Your task to perform on an android device: toggle notifications settings in the gmail app Image 0: 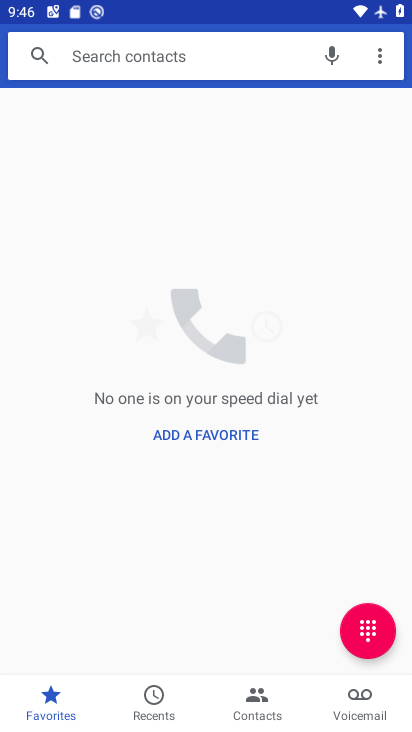
Step 0: press home button
Your task to perform on an android device: toggle notifications settings in the gmail app Image 1: 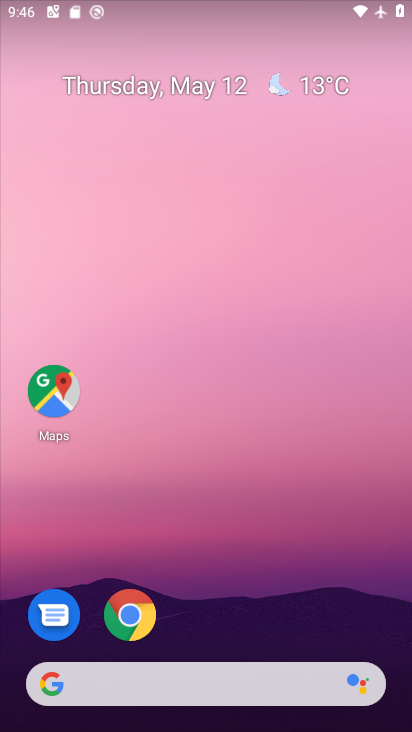
Step 1: drag from (247, 541) to (196, 142)
Your task to perform on an android device: toggle notifications settings in the gmail app Image 2: 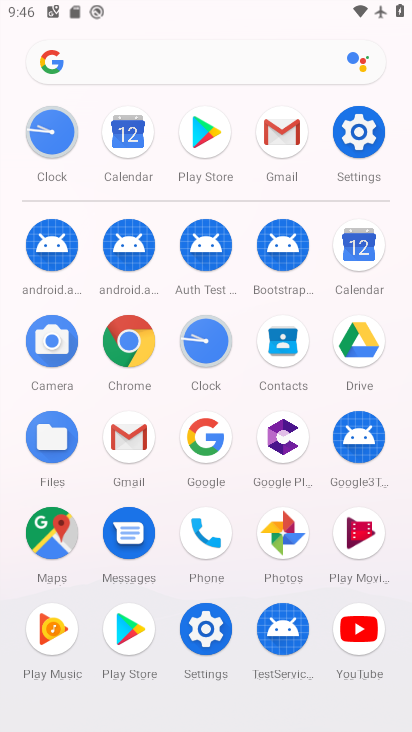
Step 2: click (282, 138)
Your task to perform on an android device: toggle notifications settings in the gmail app Image 3: 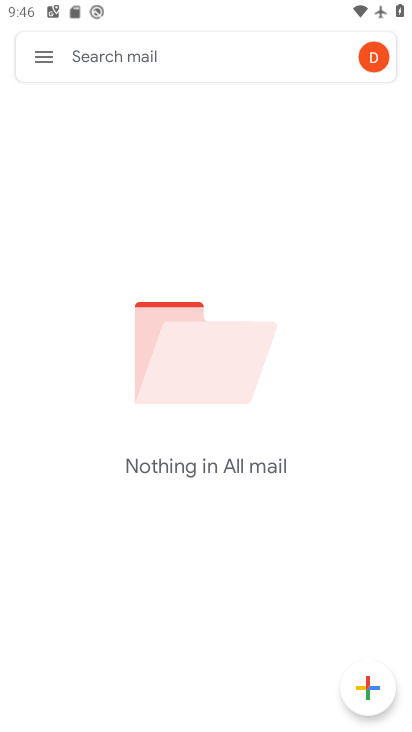
Step 3: click (37, 59)
Your task to perform on an android device: toggle notifications settings in the gmail app Image 4: 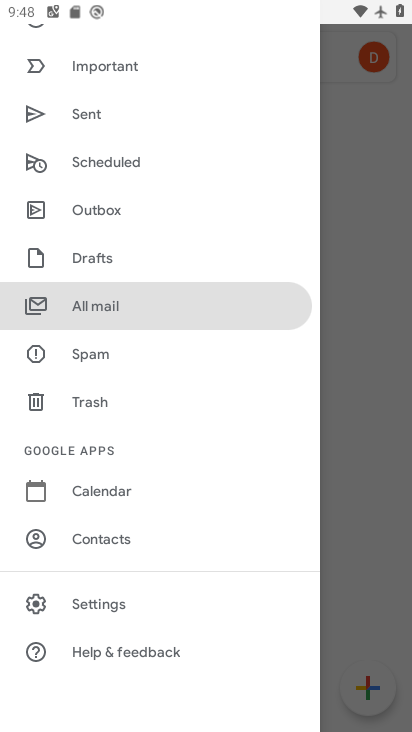
Step 4: click (100, 594)
Your task to perform on an android device: toggle notifications settings in the gmail app Image 5: 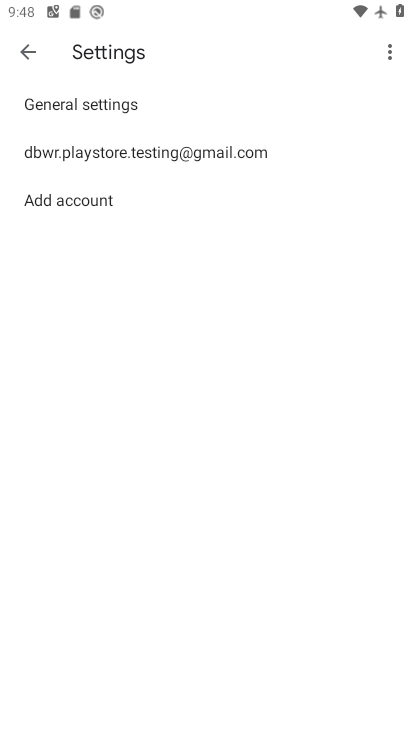
Step 5: click (23, 50)
Your task to perform on an android device: toggle notifications settings in the gmail app Image 6: 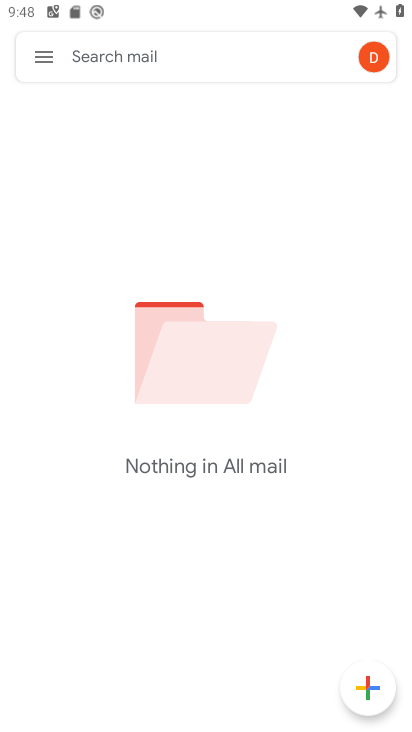
Step 6: click (48, 55)
Your task to perform on an android device: toggle notifications settings in the gmail app Image 7: 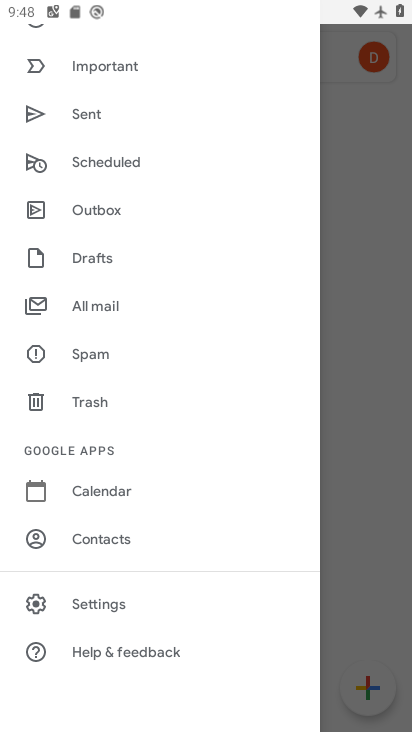
Step 7: click (102, 612)
Your task to perform on an android device: toggle notifications settings in the gmail app Image 8: 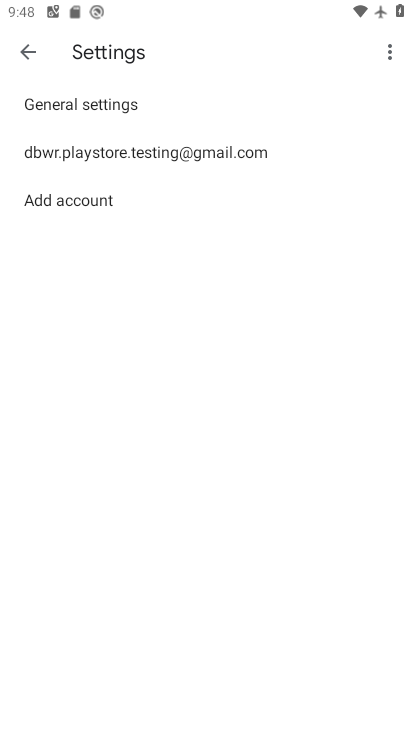
Step 8: click (80, 96)
Your task to perform on an android device: toggle notifications settings in the gmail app Image 9: 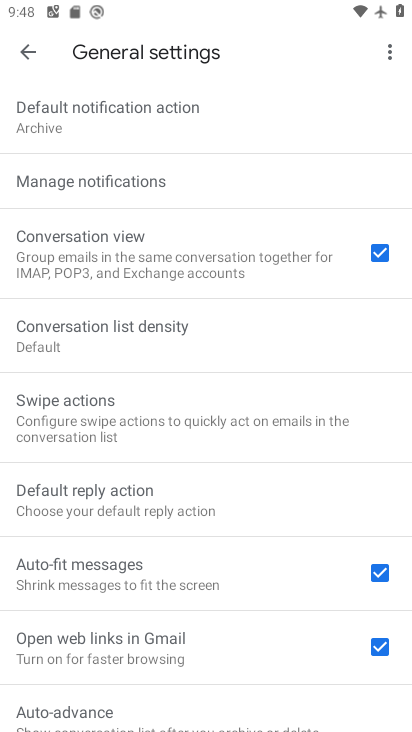
Step 9: click (72, 174)
Your task to perform on an android device: toggle notifications settings in the gmail app Image 10: 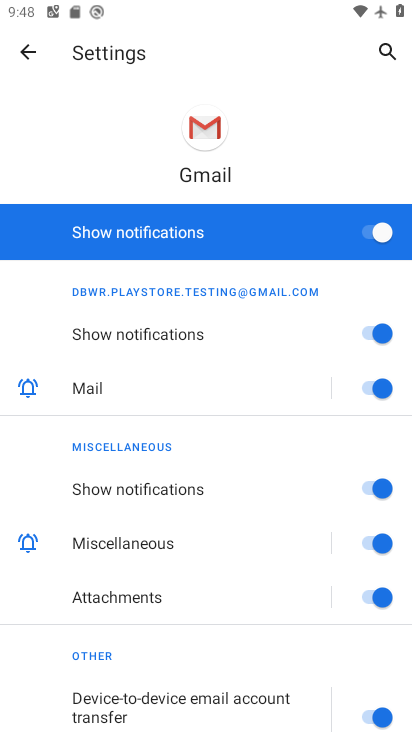
Step 10: click (380, 233)
Your task to perform on an android device: toggle notifications settings in the gmail app Image 11: 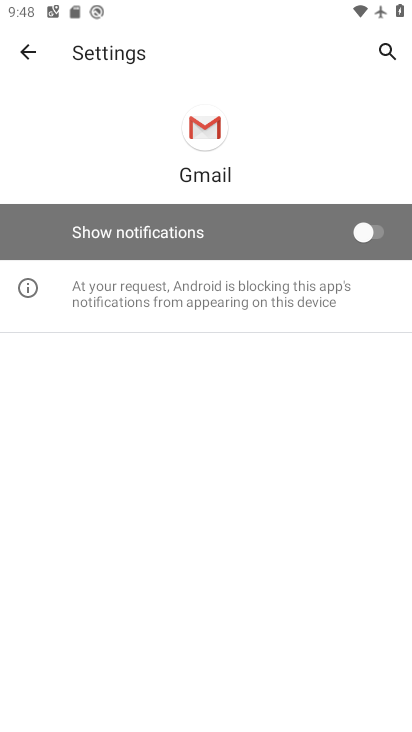
Step 11: task complete